Your task to perform on an android device: Open the calendar and show me this week's events? Image 0: 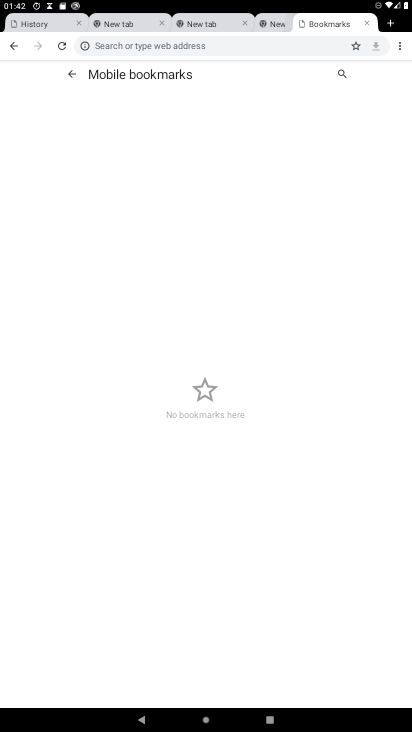
Step 0: press home button
Your task to perform on an android device: Open the calendar and show me this week's events? Image 1: 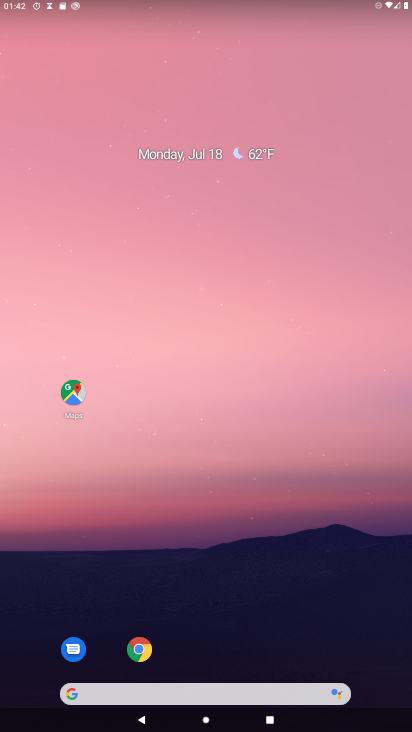
Step 1: drag from (27, 654) to (229, 15)
Your task to perform on an android device: Open the calendar and show me this week's events? Image 2: 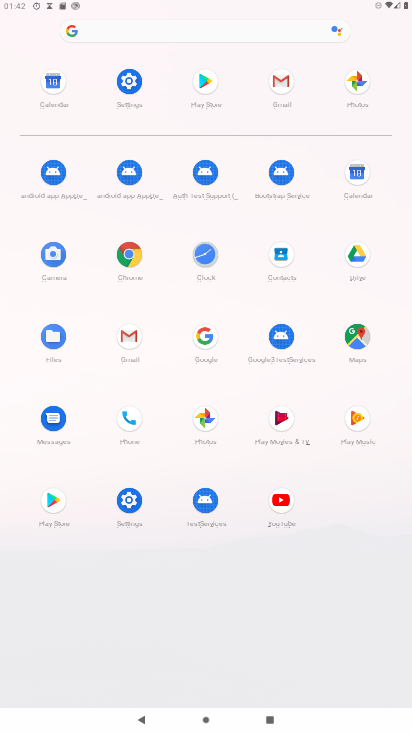
Step 2: click (358, 169)
Your task to perform on an android device: Open the calendar and show me this week's events? Image 3: 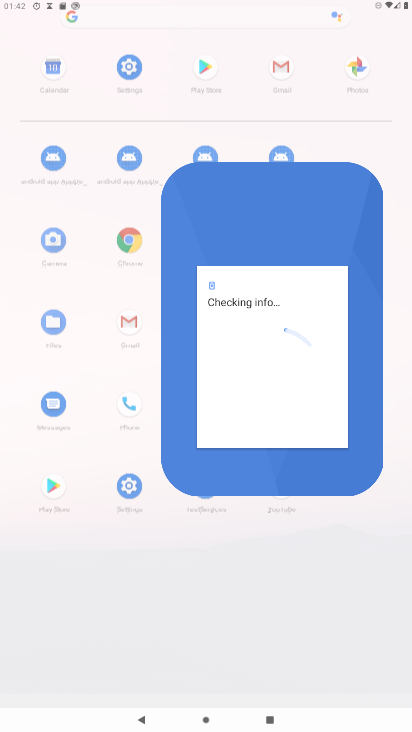
Step 3: click (358, 168)
Your task to perform on an android device: Open the calendar and show me this week's events? Image 4: 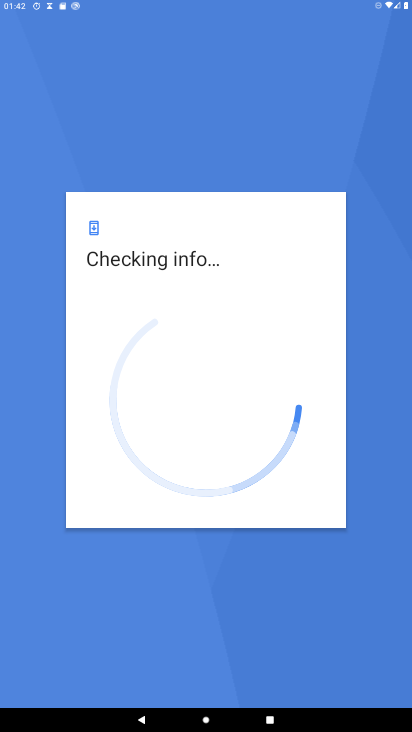
Step 4: click (358, 168)
Your task to perform on an android device: Open the calendar and show me this week's events? Image 5: 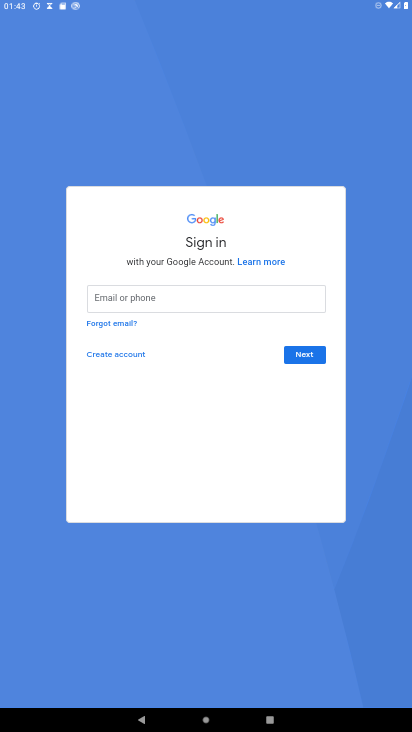
Step 5: task complete